Your task to perform on an android device: uninstall "Google Maps" Image 0: 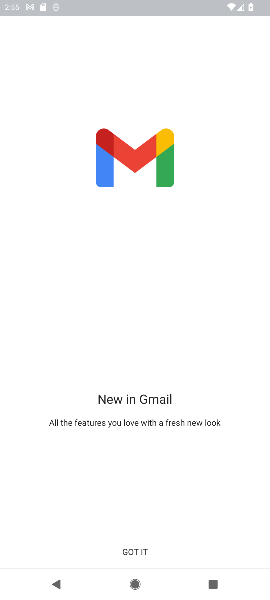
Step 0: press back button
Your task to perform on an android device: uninstall "Google Maps" Image 1: 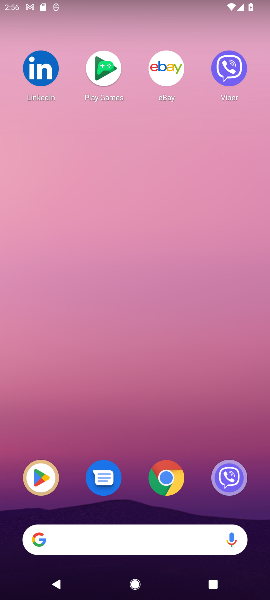
Step 1: drag from (168, 556) to (183, 93)
Your task to perform on an android device: uninstall "Google Maps" Image 2: 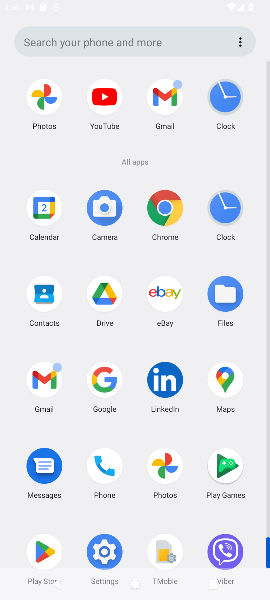
Step 2: drag from (188, 315) to (197, 11)
Your task to perform on an android device: uninstall "Google Maps" Image 3: 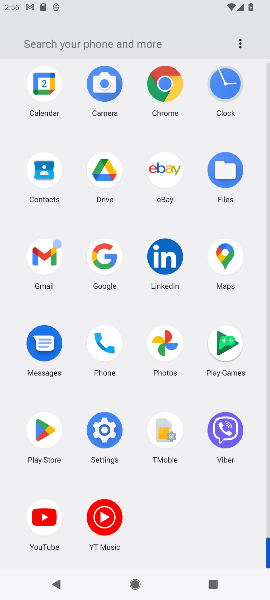
Step 3: drag from (185, 298) to (156, 21)
Your task to perform on an android device: uninstall "Google Maps" Image 4: 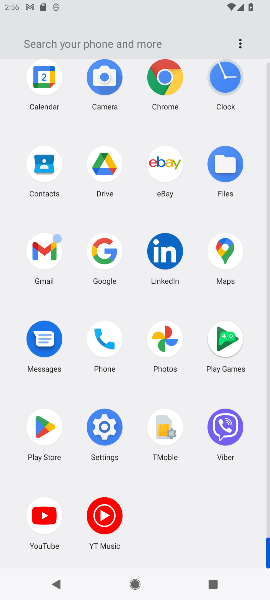
Step 4: click (135, 0)
Your task to perform on an android device: uninstall "Google Maps" Image 5: 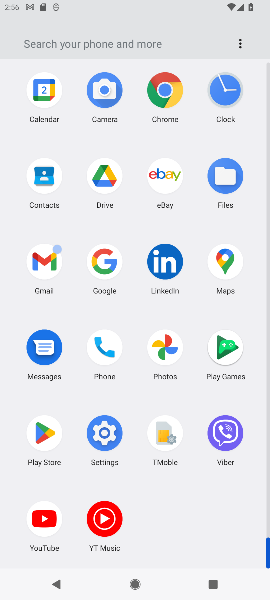
Step 5: drag from (138, 344) to (114, 47)
Your task to perform on an android device: uninstall "Google Maps" Image 6: 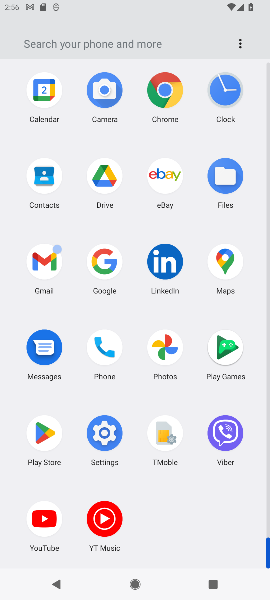
Step 6: drag from (150, 410) to (120, 6)
Your task to perform on an android device: uninstall "Google Maps" Image 7: 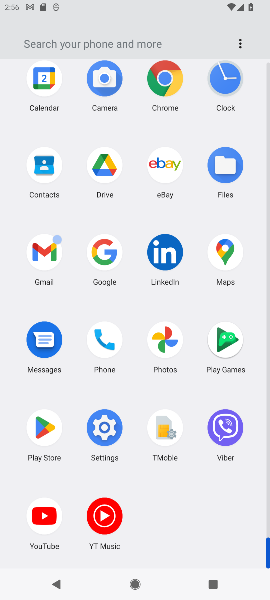
Step 7: drag from (100, 482) to (93, 11)
Your task to perform on an android device: uninstall "Google Maps" Image 8: 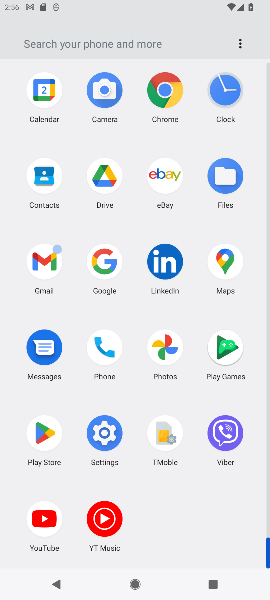
Step 8: click (43, 426)
Your task to perform on an android device: uninstall "Google Maps" Image 9: 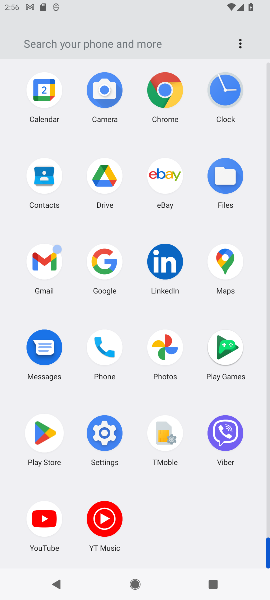
Step 9: click (53, 427)
Your task to perform on an android device: uninstall "Google Maps" Image 10: 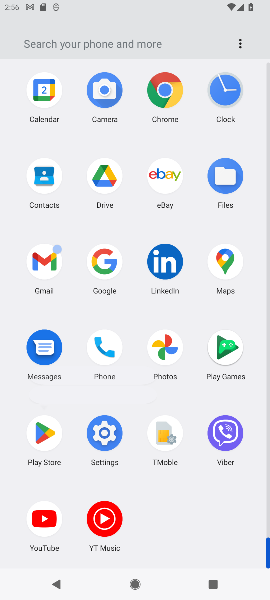
Step 10: click (56, 428)
Your task to perform on an android device: uninstall "Google Maps" Image 11: 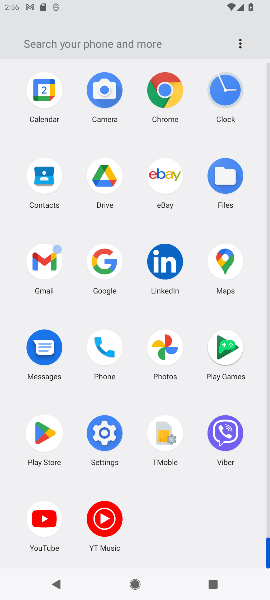
Step 11: click (57, 430)
Your task to perform on an android device: uninstall "Google Maps" Image 12: 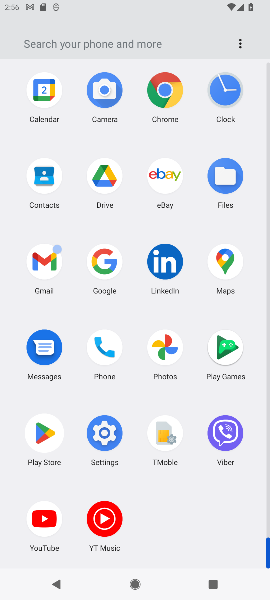
Step 12: click (60, 431)
Your task to perform on an android device: uninstall "Google Maps" Image 13: 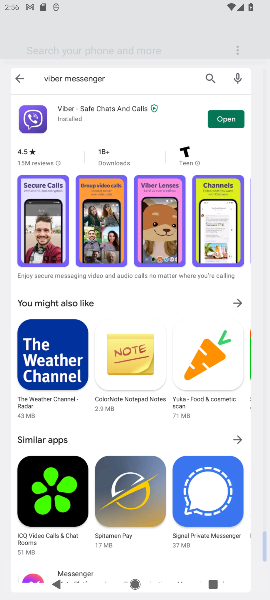
Step 13: click (60, 431)
Your task to perform on an android device: uninstall "Google Maps" Image 14: 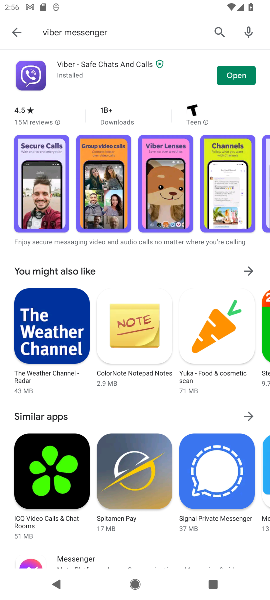
Step 14: click (11, 27)
Your task to perform on an android device: uninstall "Google Maps" Image 15: 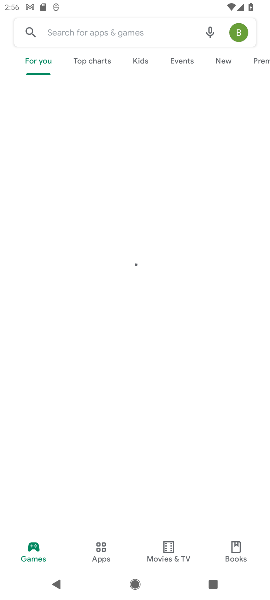
Step 15: click (14, 28)
Your task to perform on an android device: uninstall "Google Maps" Image 16: 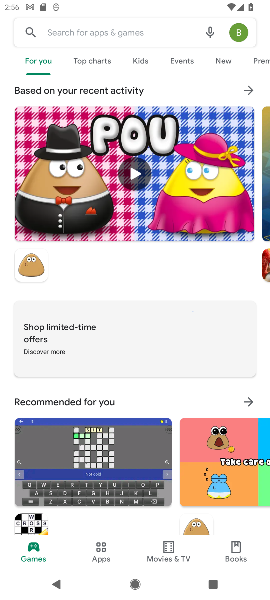
Step 16: click (21, 40)
Your task to perform on an android device: uninstall "Google Maps" Image 17: 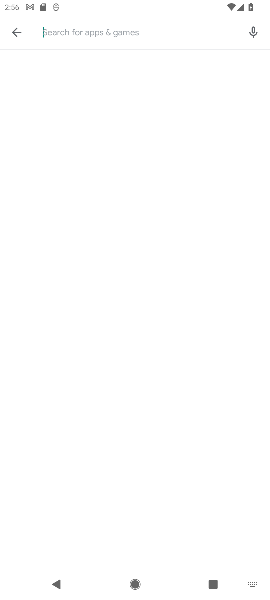
Step 17: click (73, 32)
Your task to perform on an android device: uninstall "Google Maps" Image 18: 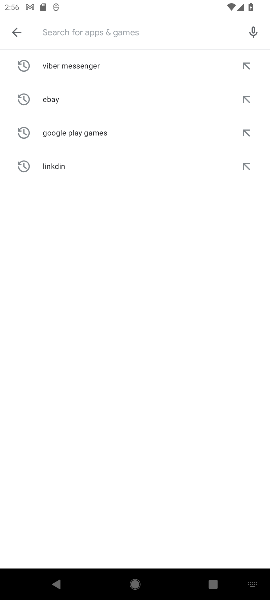
Step 18: click (73, 32)
Your task to perform on an android device: uninstall "Google Maps" Image 19: 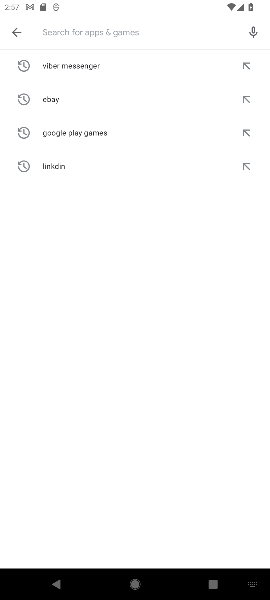
Step 19: type "google maps"
Your task to perform on an android device: uninstall "Google Maps" Image 20: 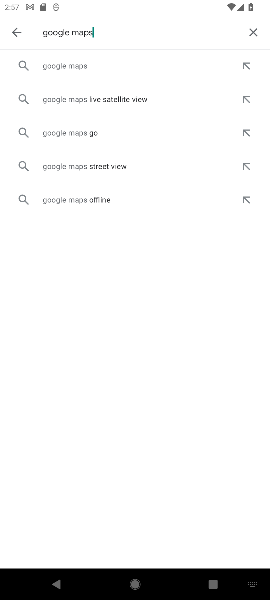
Step 20: click (63, 73)
Your task to perform on an android device: uninstall "Google Maps" Image 21: 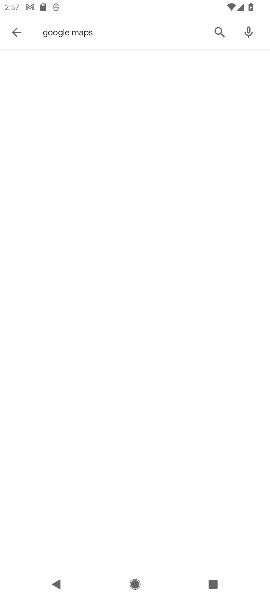
Step 21: click (73, 70)
Your task to perform on an android device: uninstall "Google Maps" Image 22: 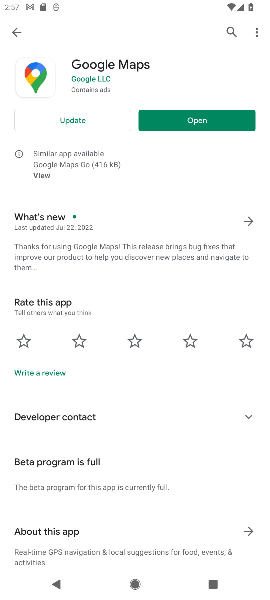
Step 22: click (186, 119)
Your task to perform on an android device: uninstall "Google Maps" Image 23: 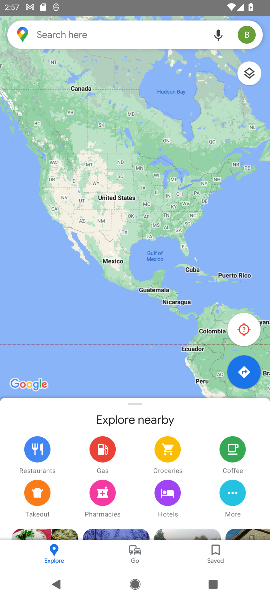
Step 23: task complete